Your task to perform on an android device: change timer sound Image 0: 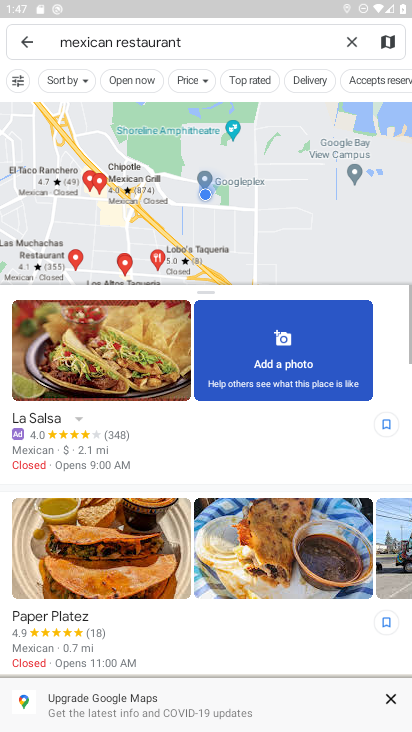
Step 0: press home button
Your task to perform on an android device: change timer sound Image 1: 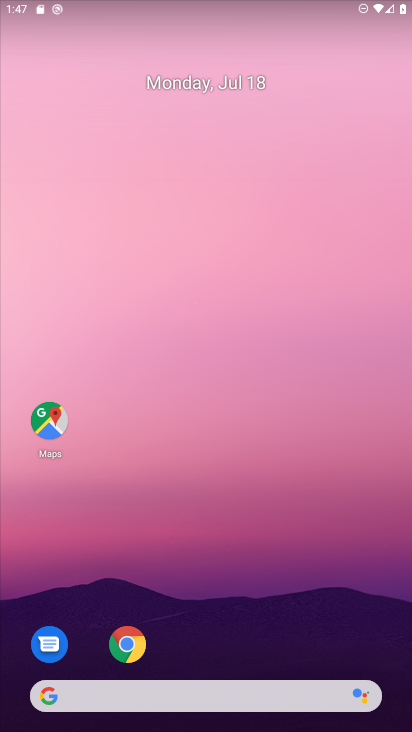
Step 1: drag from (343, 542) to (304, 85)
Your task to perform on an android device: change timer sound Image 2: 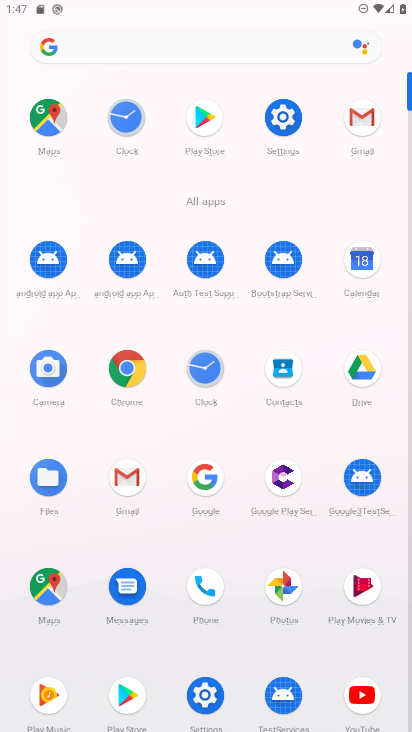
Step 2: click (201, 370)
Your task to perform on an android device: change timer sound Image 3: 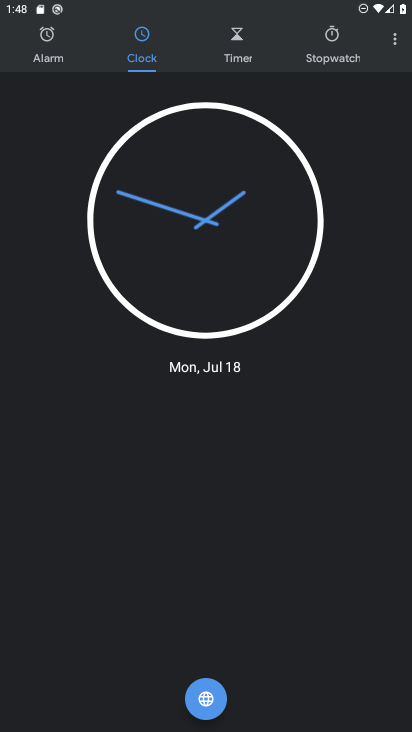
Step 3: click (394, 40)
Your task to perform on an android device: change timer sound Image 4: 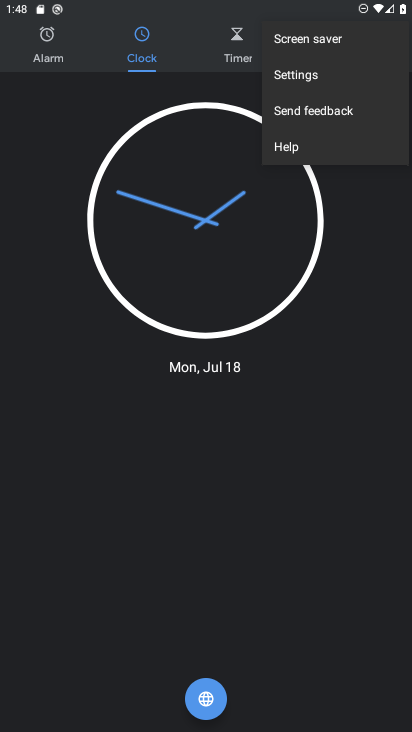
Step 4: click (318, 81)
Your task to perform on an android device: change timer sound Image 5: 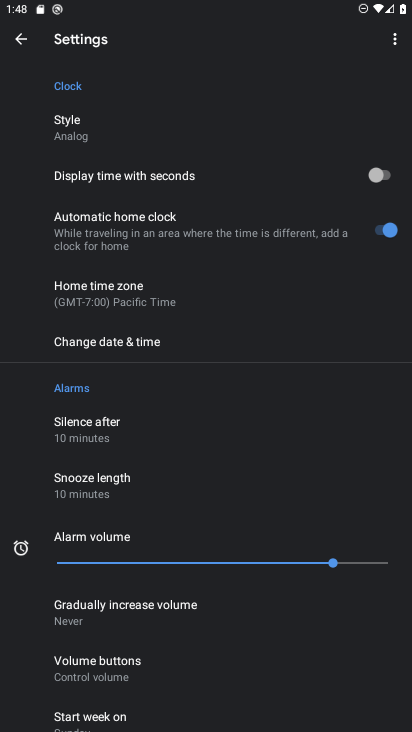
Step 5: drag from (195, 516) to (138, 93)
Your task to perform on an android device: change timer sound Image 6: 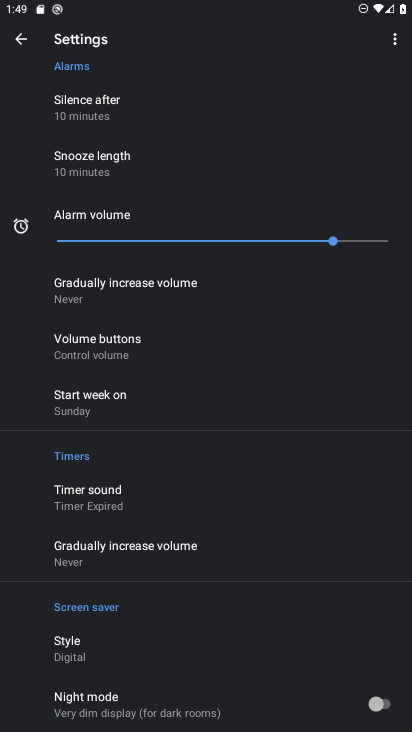
Step 6: click (143, 494)
Your task to perform on an android device: change timer sound Image 7: 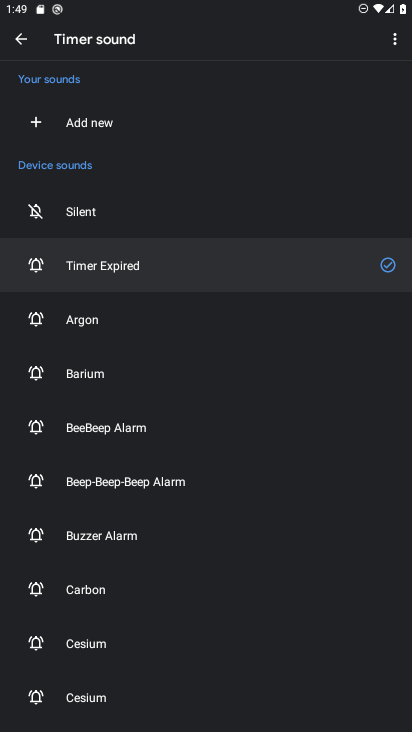
Step 7: click (144, 320)
Your task to perform on an android device: change timer sound Image 8: 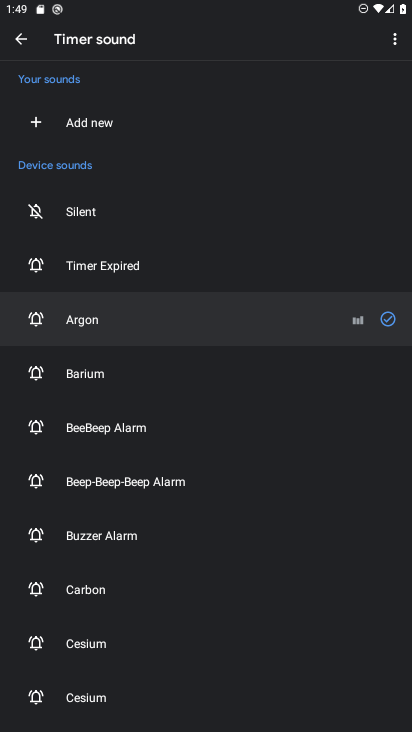
Step 8: task complete